Your task to perform on an android device: change the clock display to digital Image 0: 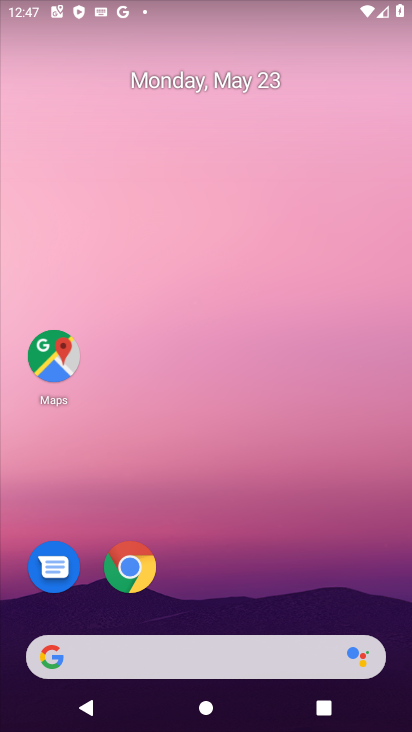
Step 0: drag from (207, 596) to (177, 78)
Your task to perform on an android device: change the clock display to digital Image 1: 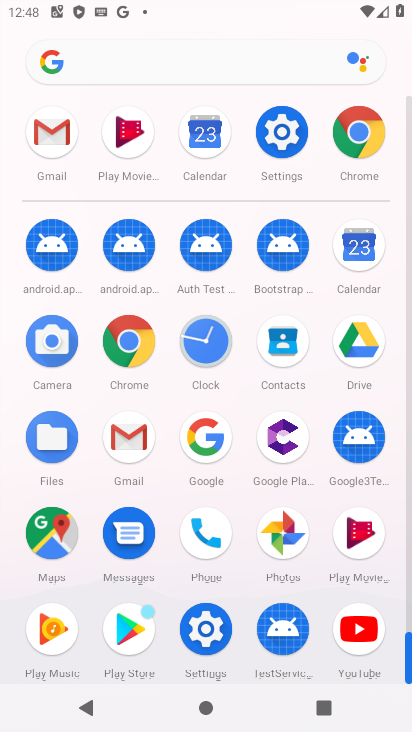
Step 1: click (208, 332)
Your task to perform on an android device: change the clock display to digital Image 2: 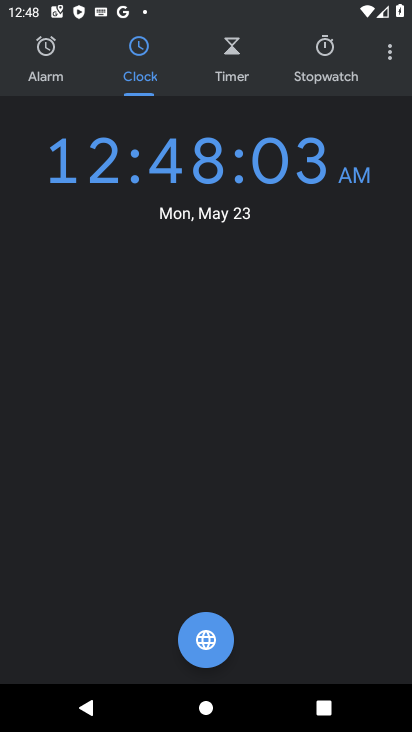
Step 2: click (394, 49)
Your task to perform on an android device: change the clock display to digital Image 3: 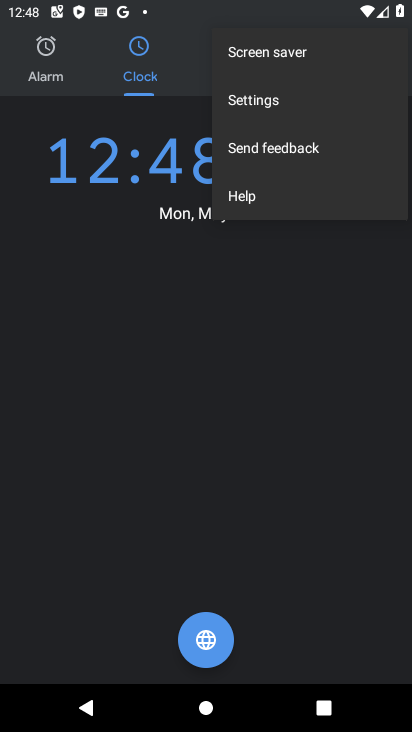
Step 3: click (362, 98)
Your task to perform on an android device: change the clock display to digital Image 4: 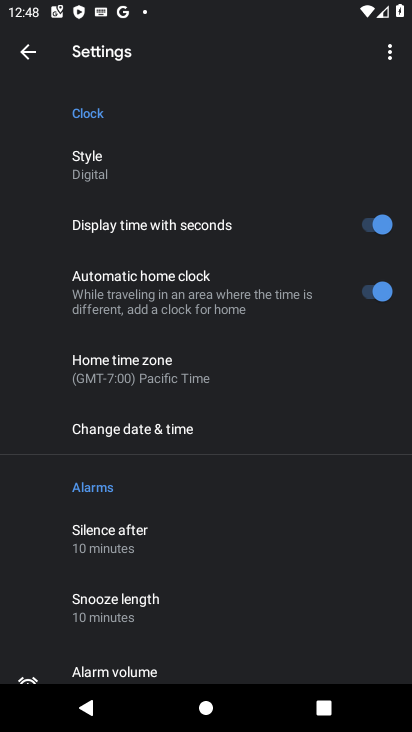
Step 4: click (265, 175)
Your task to perform on an android device: change the clock display to digital Image 5: 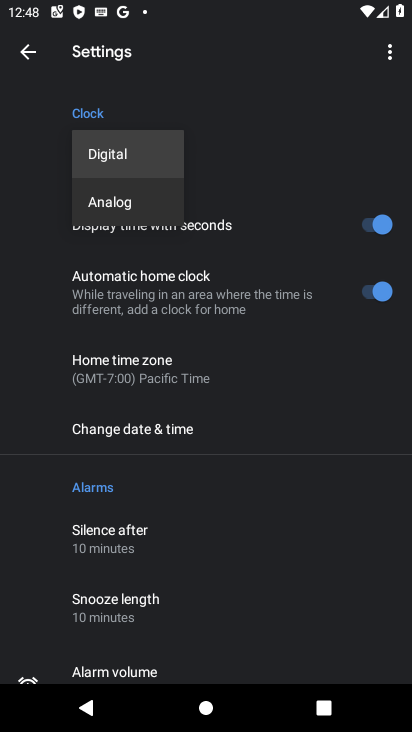
Step 5: task complete